Your task to perform on an android device: Open the phone app and click the voicemail tab. Image 0: 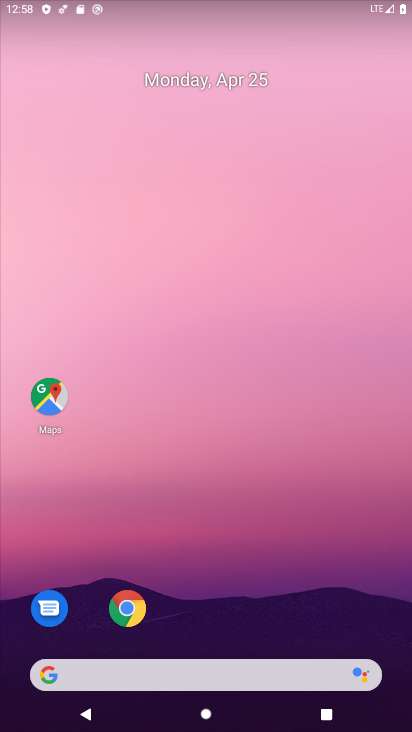
Step 0: drag from (312, 548) to (279, 121)
Your task to perform on an android device: Open the phone app and click the voicemail tab. Image 1: 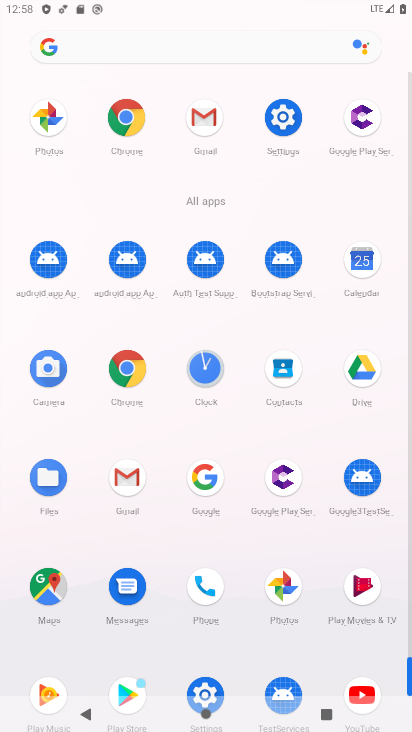
Step 1: click (194, 585)
Your task to perform on an android device: Open the phone app and click the voicemail tab. Image 2: 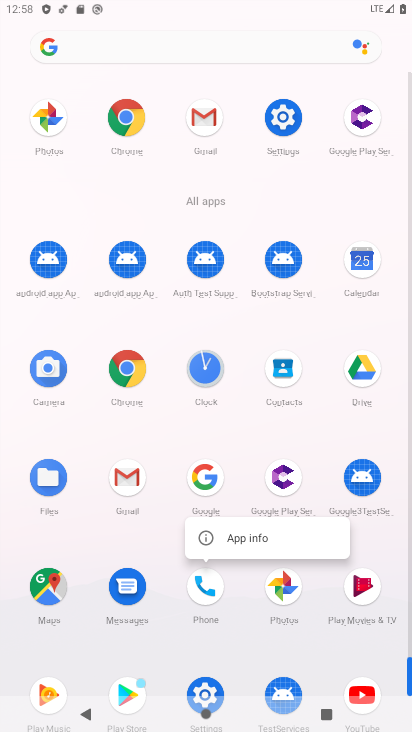
Step 2: click (205, 595)
Your task to perform on an android device: Open the phone app and click the voicemail tab. Image 3: 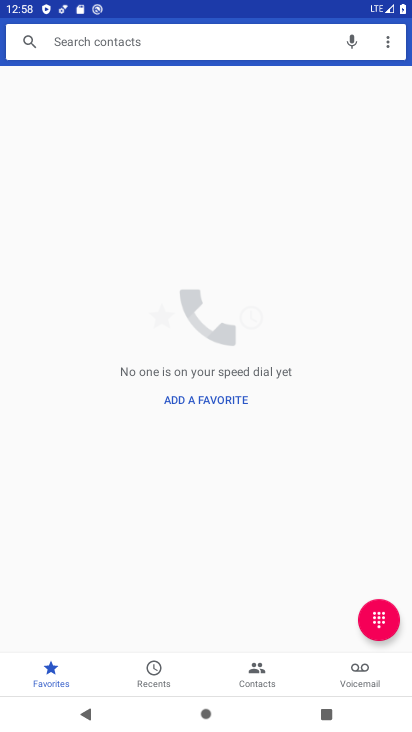
Step 3: click (352, 662)
Your task to perform on an android device: Open the phone app and click the voicemail tab. Image 4: 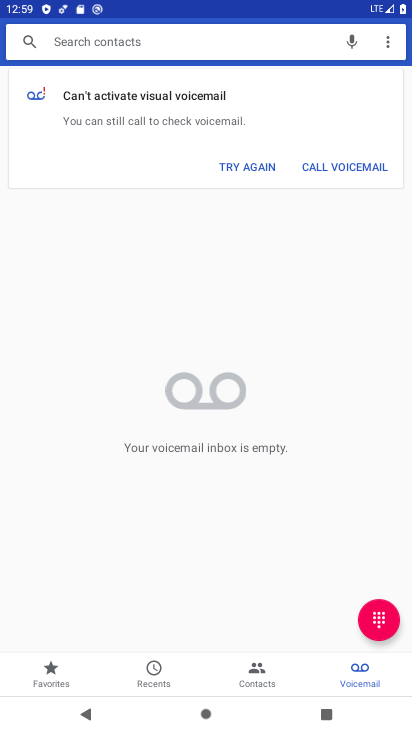
Step 4: task complete